Your task to perform on an android device: Search for Mexican restaurants on Maps Image 0: 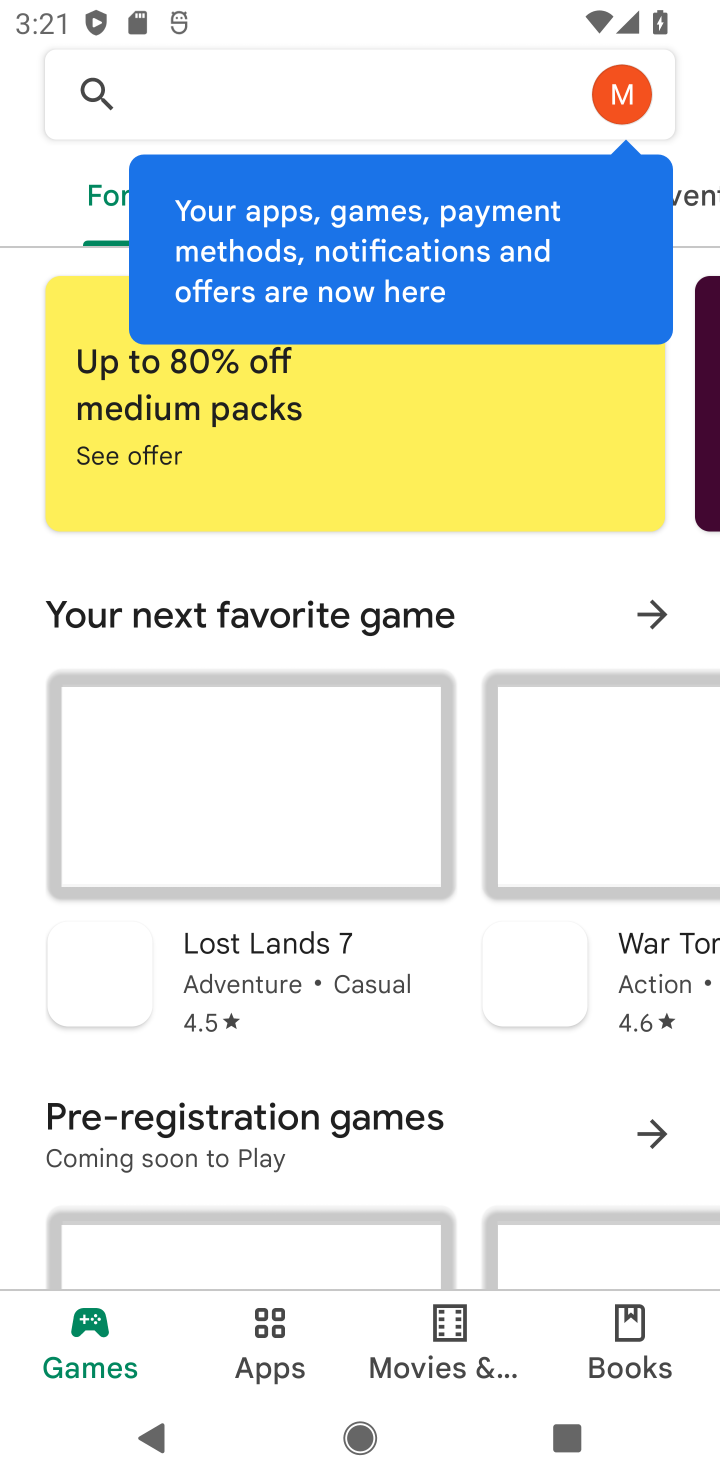
Step 0: press back button
Your task to perform on an android device: Search for Mexican restaurants on Maps Image 1: 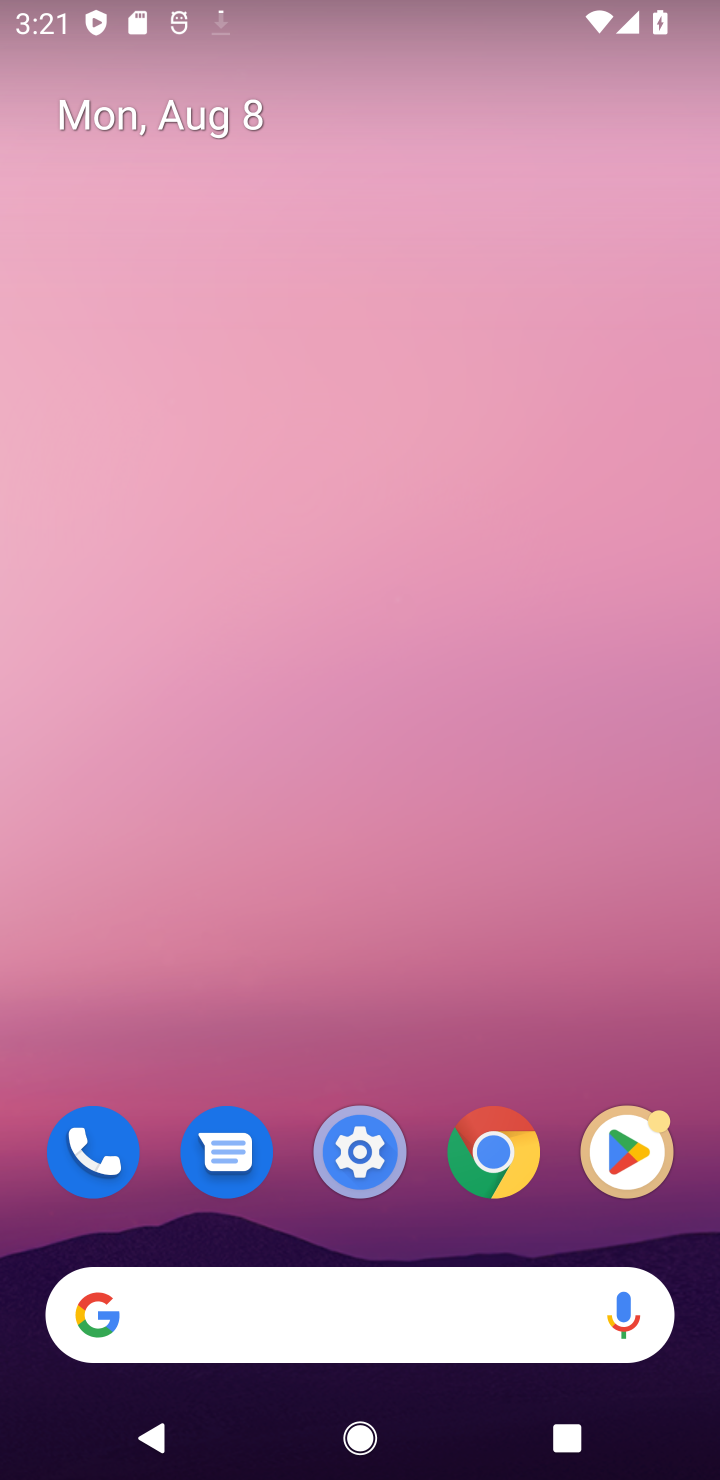
Step 1: drag from (367, 1221) to (479, 272)
Your task to perform on an android device: Search for Mexican restaurants on Maps Image 2: 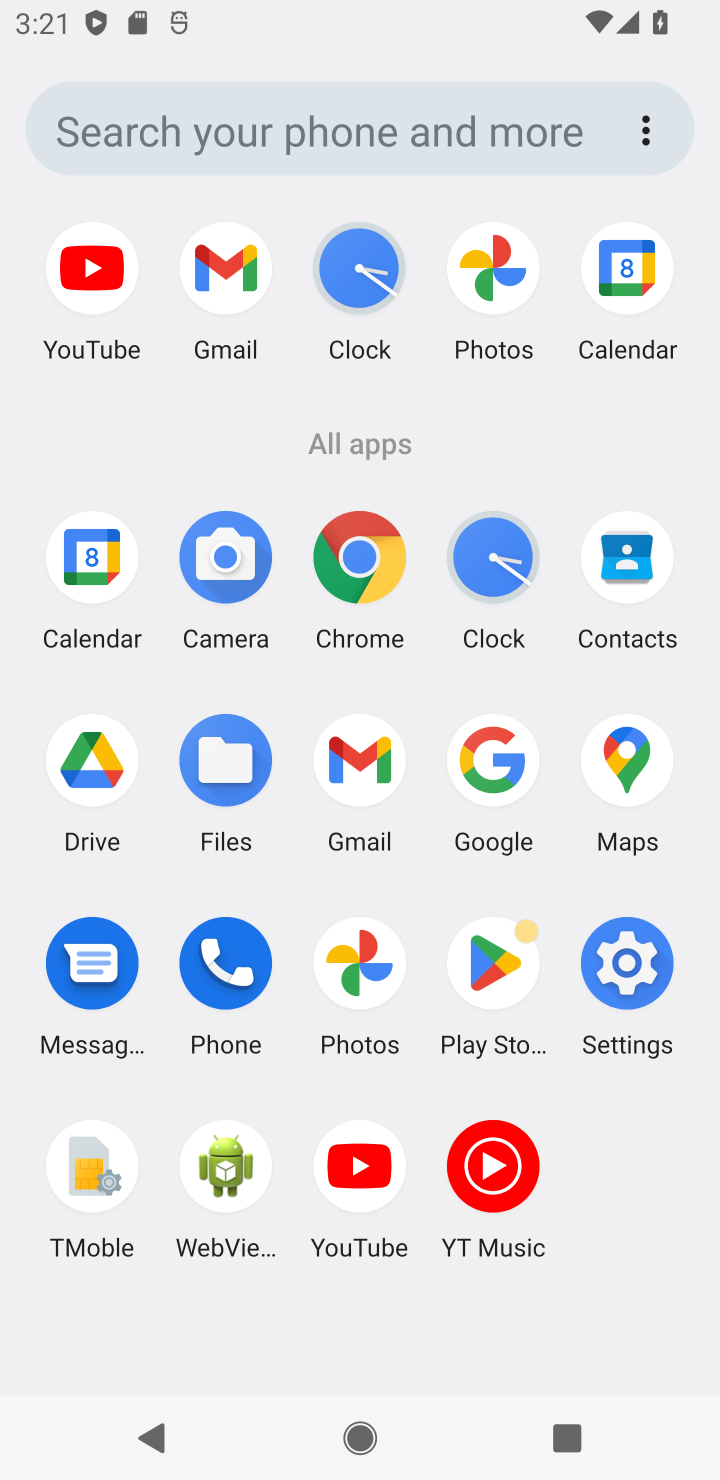
Step 2: click (618, 759)
Your task to perform on an android device: Search for Mexican restaurants on Maps Image 3: 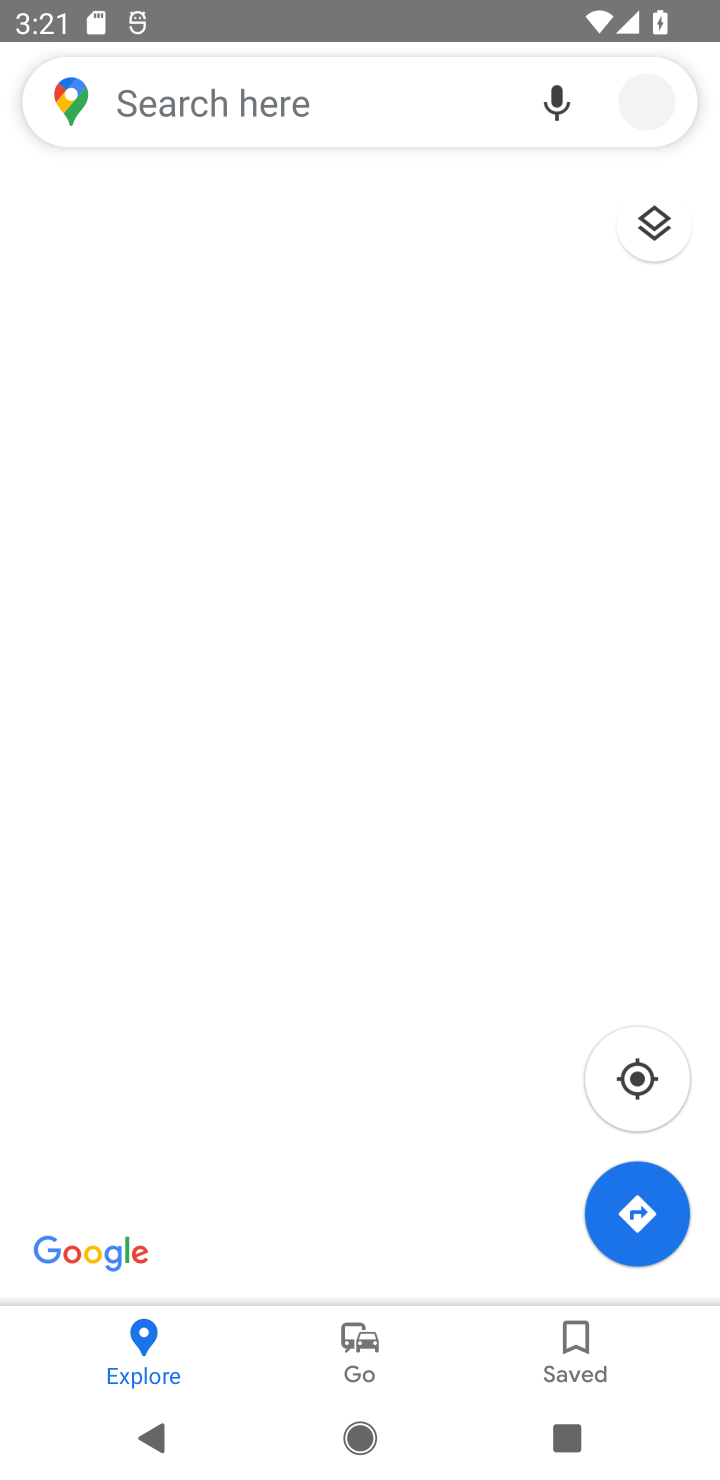
Step 3: click (276, 105)
Your task to perform on an android device: Search for Mexican restaurants on Maps Image 4: 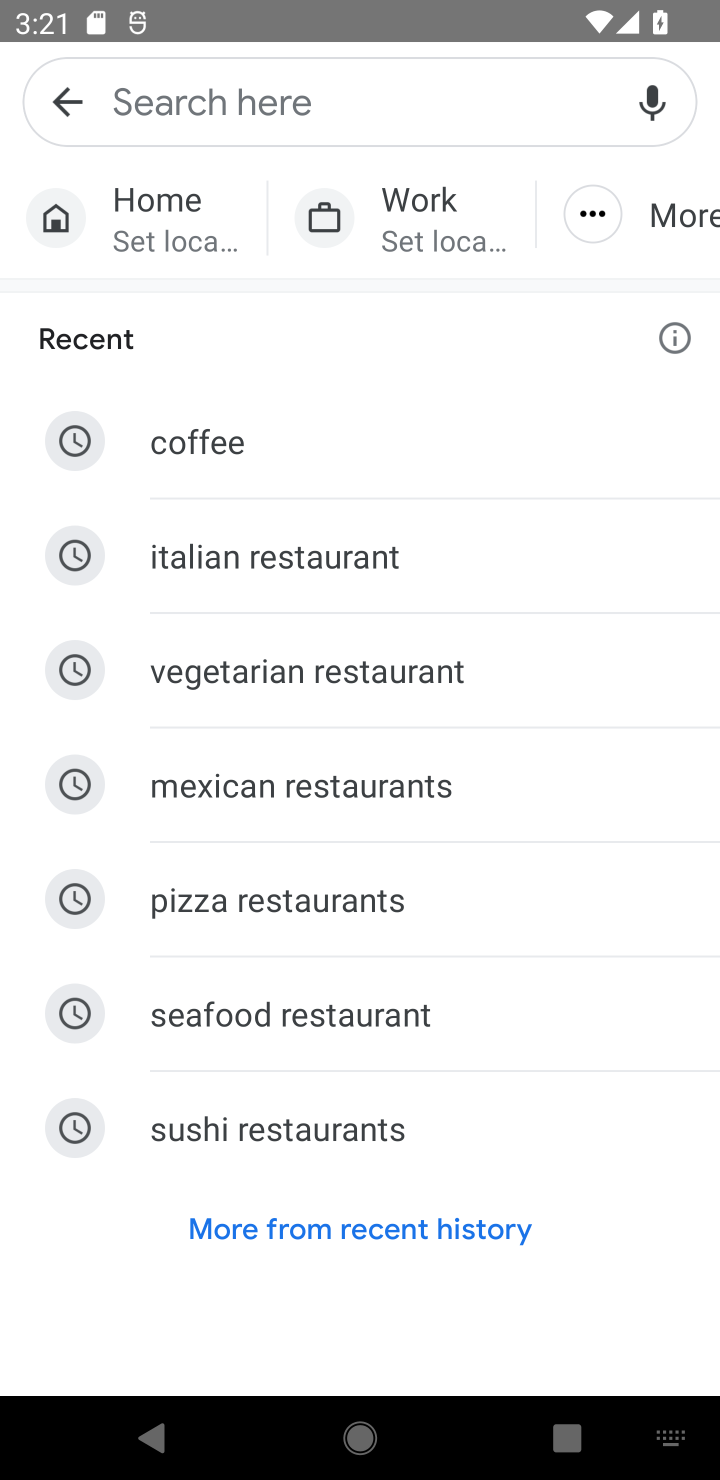
Step 4: type "mexican "
Your task to perform on an android device: Search for Mexican restaurants on Maps Image 5: 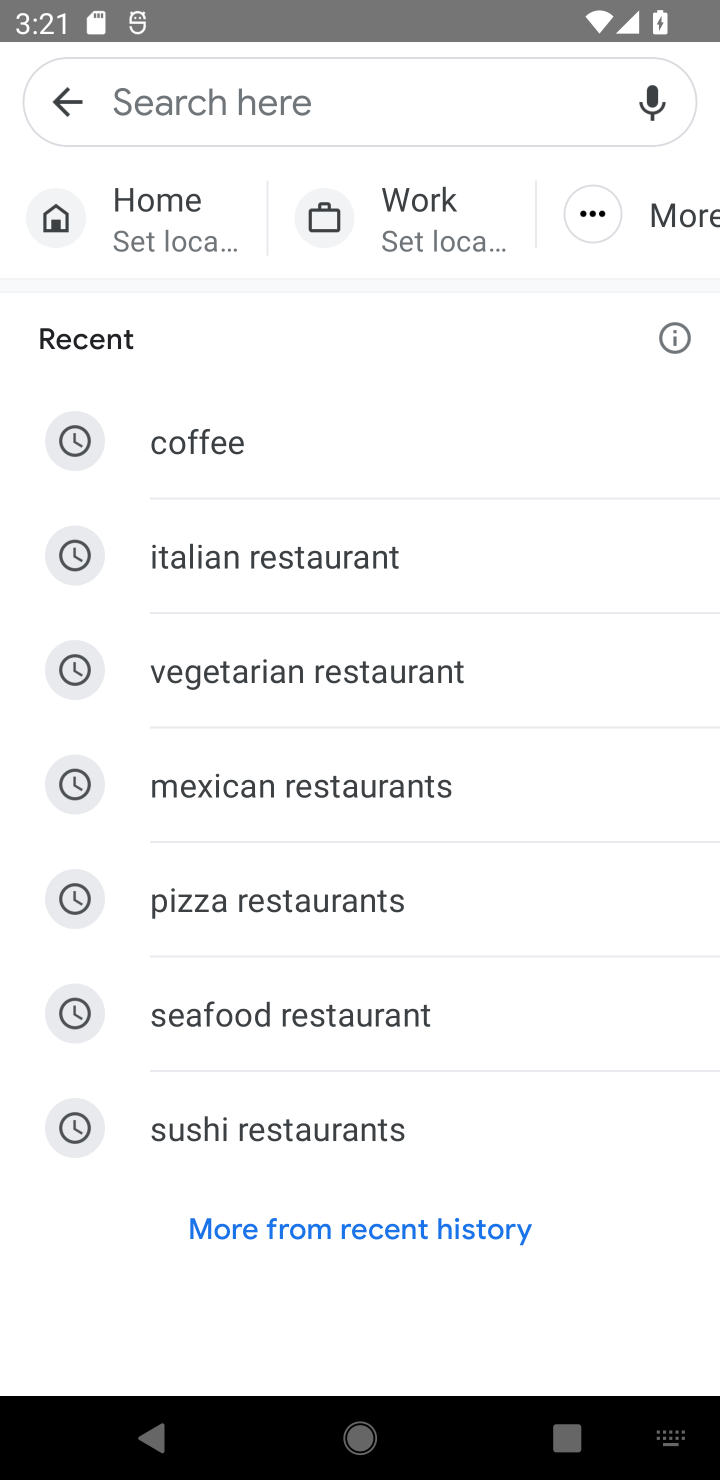
Step 5: click (372, 811)
Your task to perform on an android device: Search for Mexican restaurants on Maps Image 6: 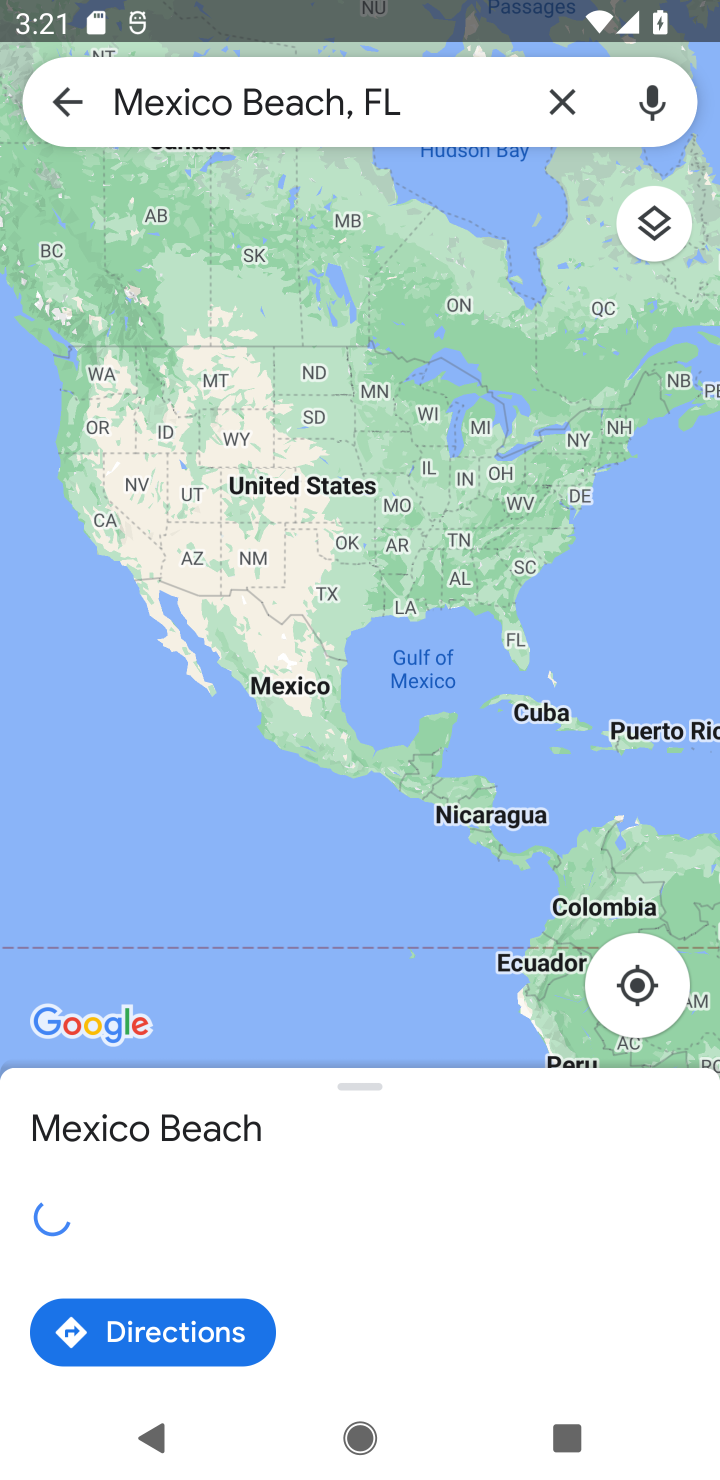
Step 6: click (346, 236)
Your task to perform on an android device: Search for Mexican restaurants on Maps Image 7: 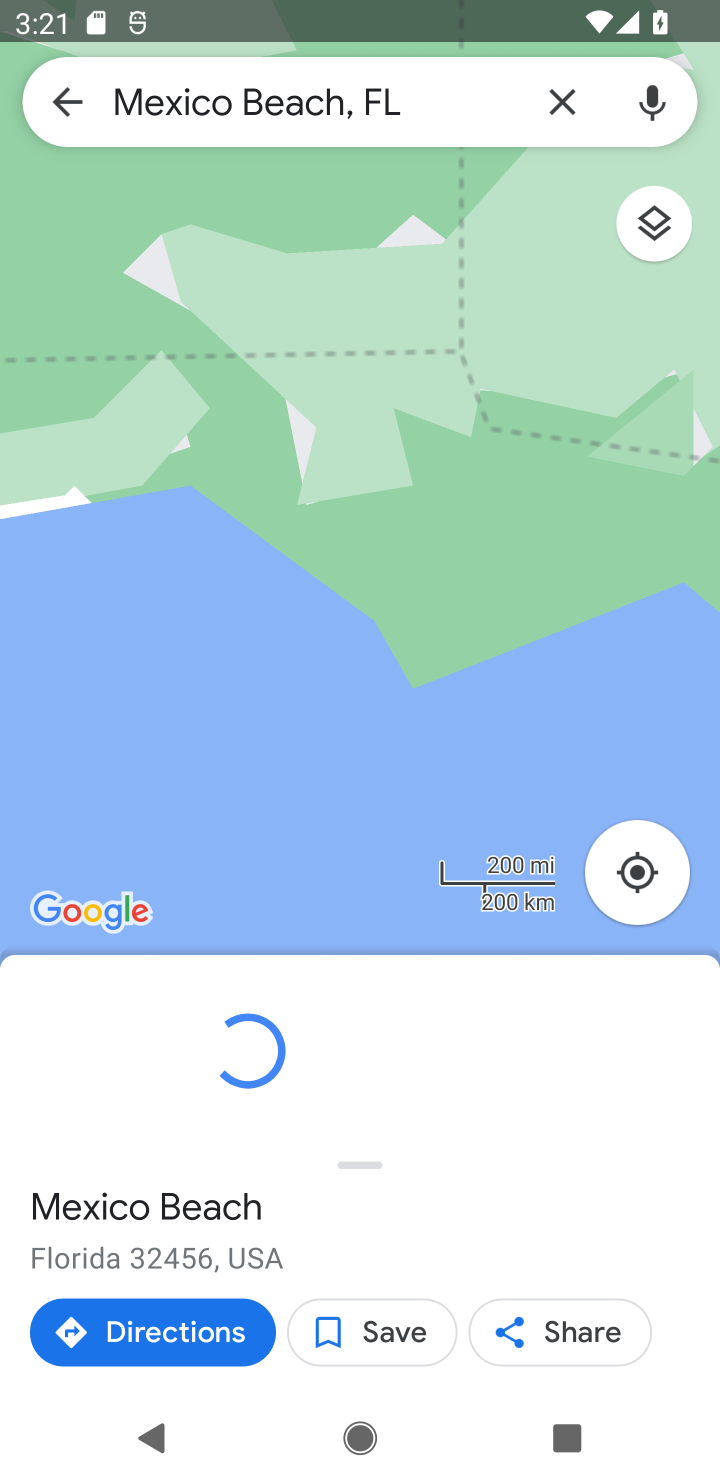
Step 7: click (572, 94)
Your task to perform on an android device: Search for Mexican restaurants on Maps Image 8: 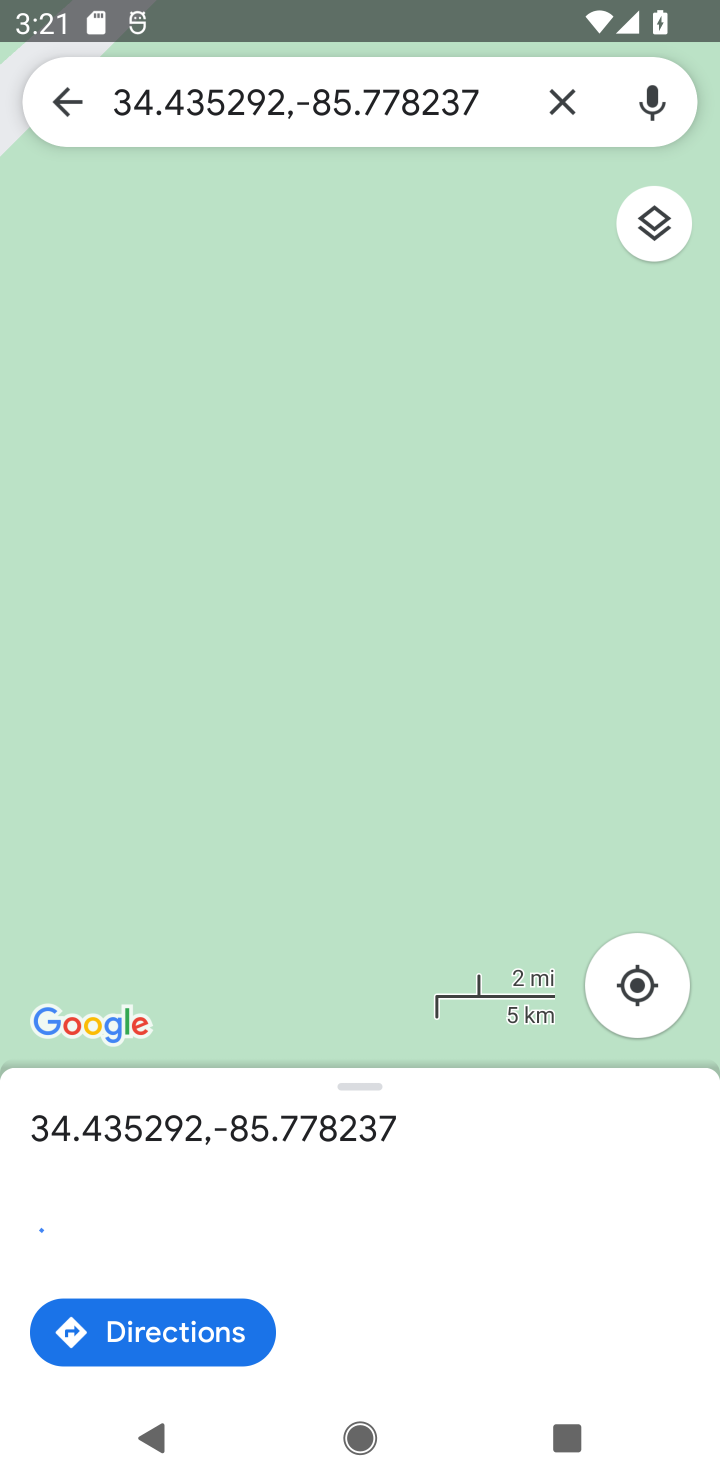
Step 8: click (565, 92)
Your task to perform on an android device: Search for Mexican restaurants on Maps Image 9: 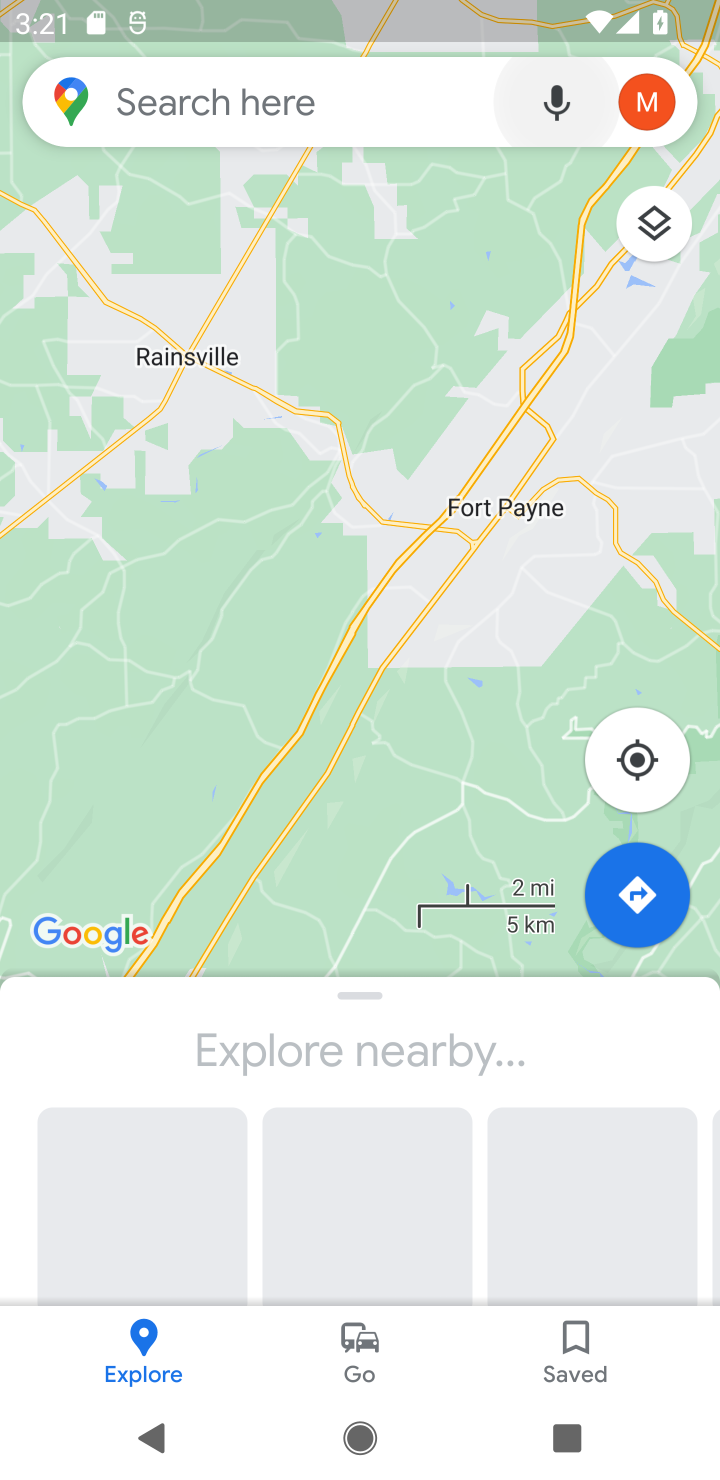
Step 9: click (270, 112)
Your task to perform on an android device: Search for Mexican restaurants on Maps Image 10: 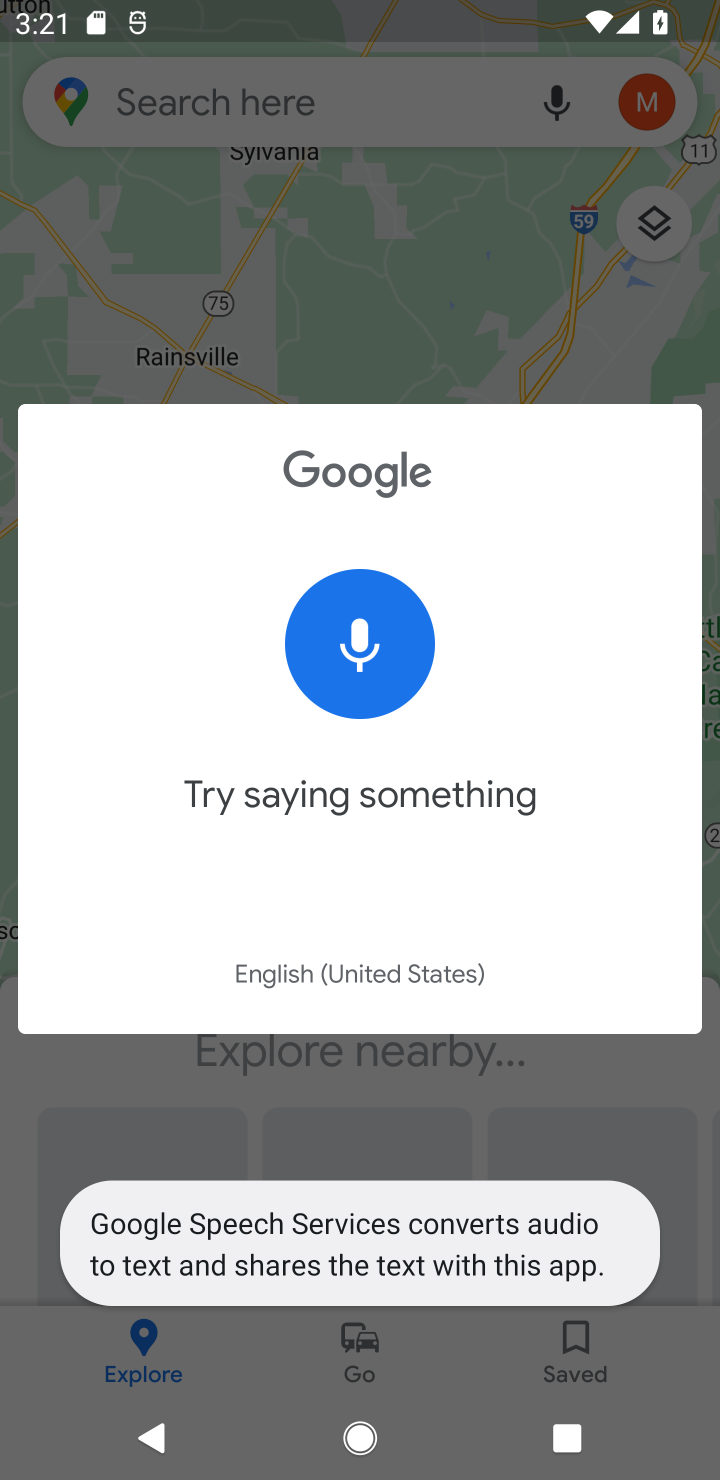
Step 10: click (270, 112)
Your task to perform on an android device: Search for Mexican restaurants on Maps Image 11: 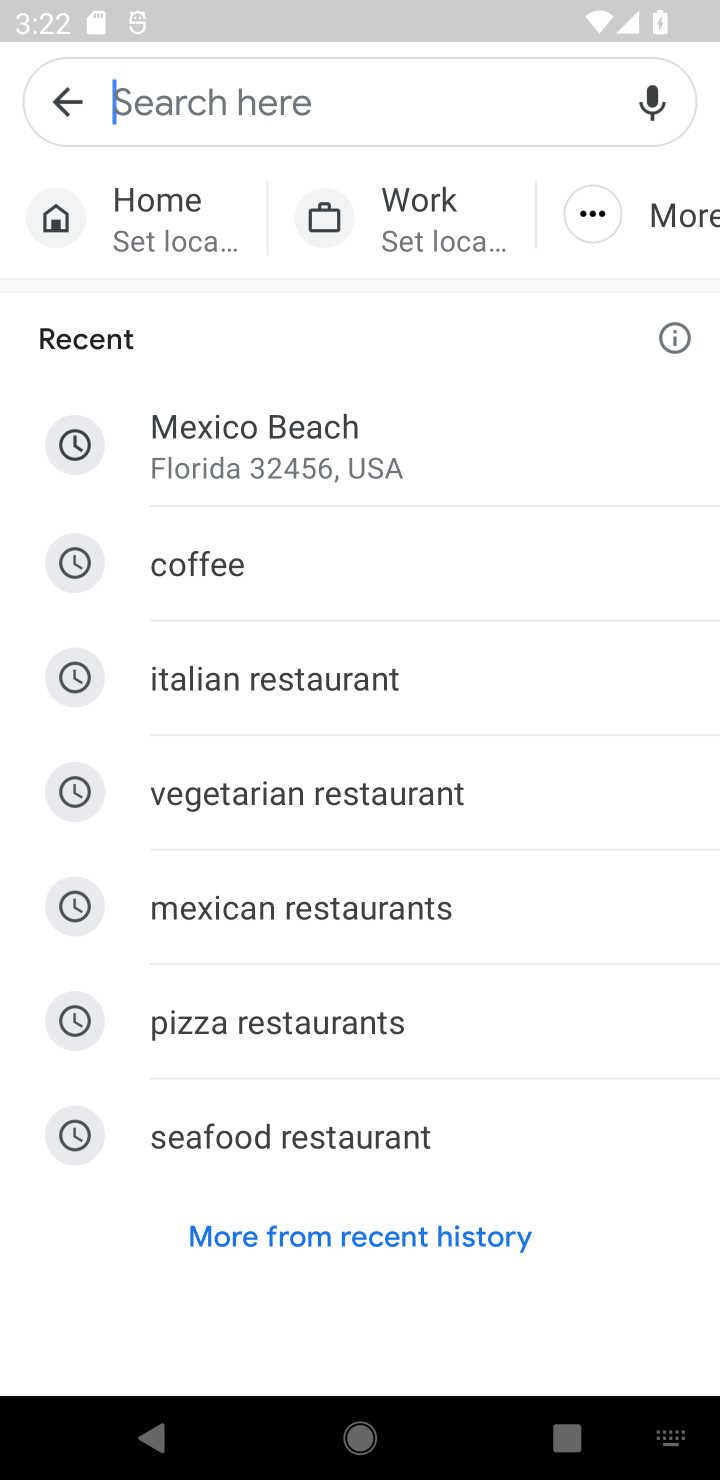
Step 11: click (323, 911)
Your task to perform on an android device: Search for Mexican restaurants on Maps Image 12: 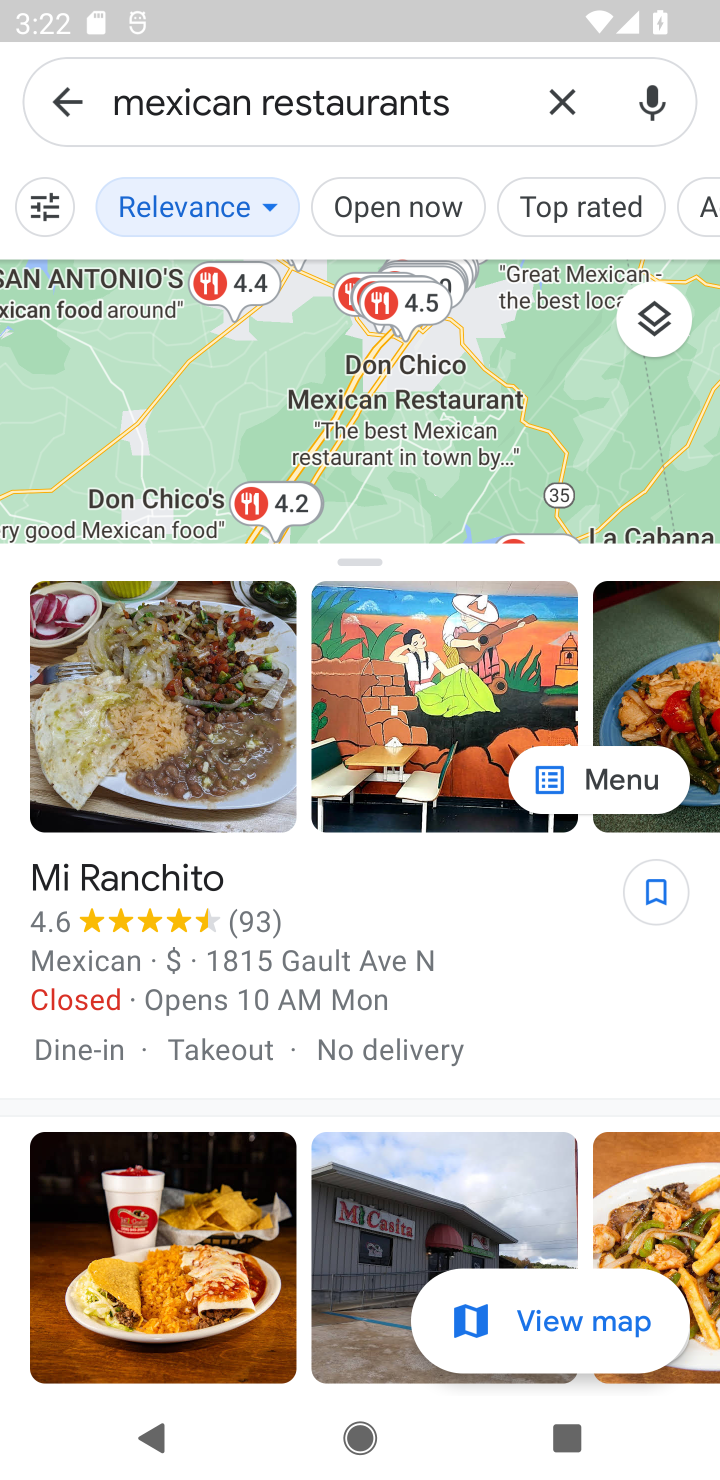
Step 12: task complete